Your task to perform on an android device: check android version Image 0: 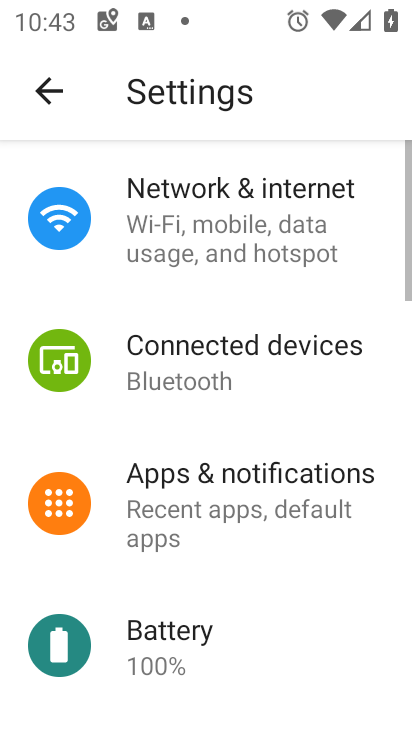
Step 0: press home button
Your task to perform on an android device: check android version Image 1: 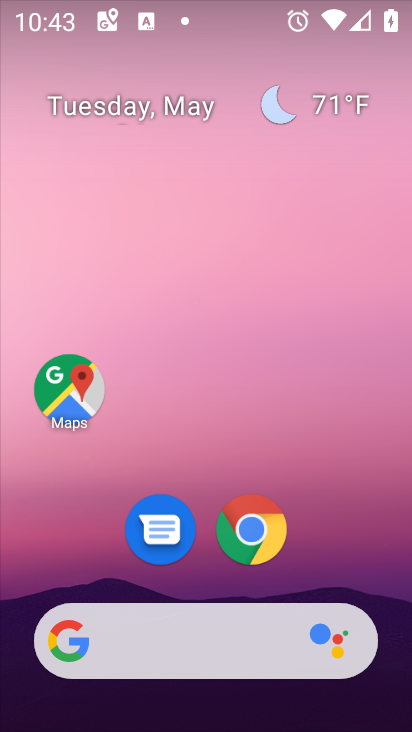
Step 1: drag from (232, 637) to (277, 236)
Your task to perform on an android device: check android version Image 2: 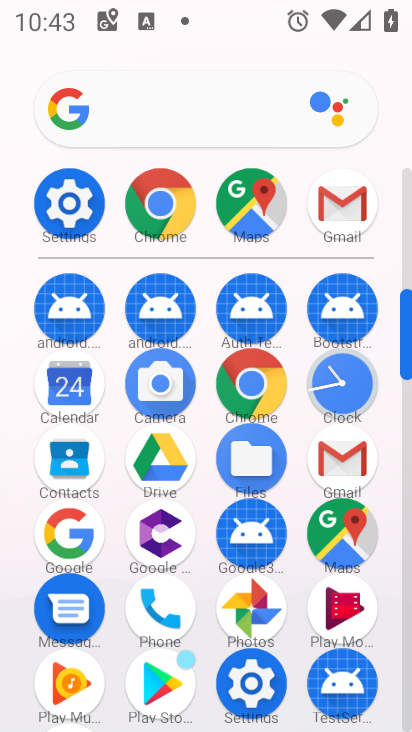
Step 2: click (86, 212)
Your task to perform on an android device: check android version Image 3: 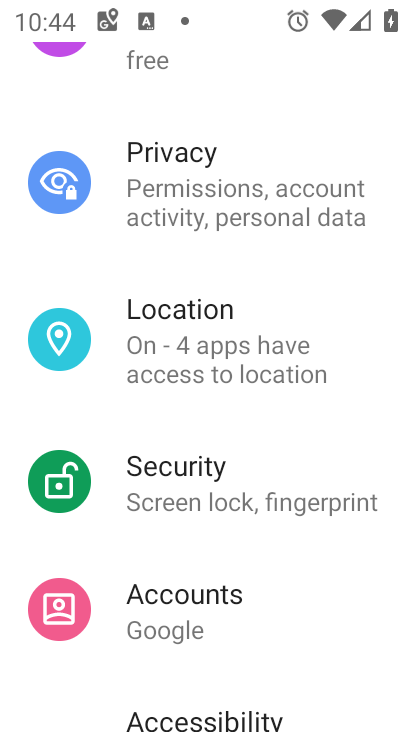
Step 3: drag from (167, 479) to (200, 347)
Your task to perform on an android device: check android version Image 4: 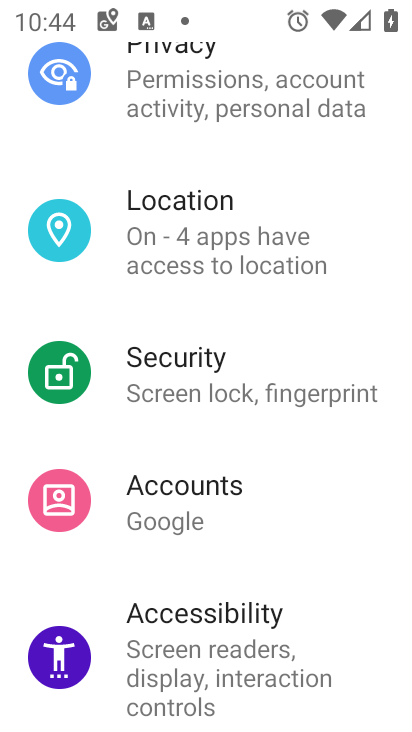
Step 4: drag from (208, 639) to (302, 123)
Your task to perform on an android device: check android version Image 5: 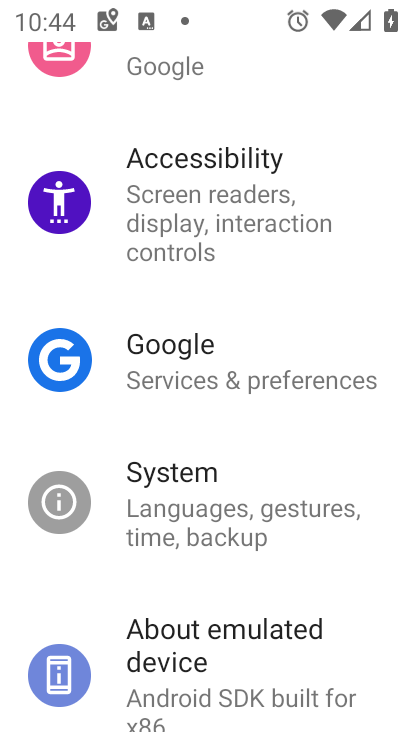
Step 5: drag from (253, 550) to (269, 377)
Your task to perform on an android device: check android version Image 6: 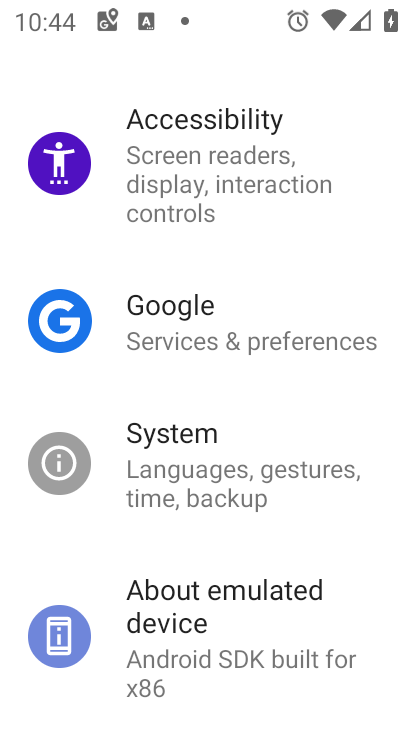
Step 6: click (261, 606)
Your task to perform on an android device: check android version Image 7: 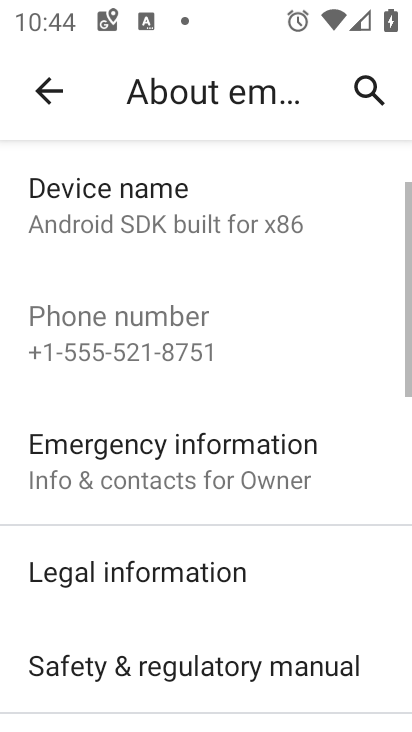
Step 7: drag from (260, 605) to (312, 303)
Your task to perform on an android device: check android version Image 8: 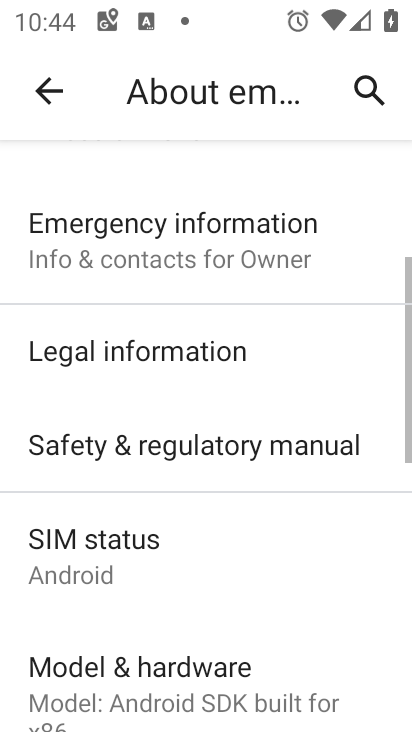
Step 8: drag from (146, 519) to (184, 290)
Your task to perform on an android device: check android version Image 9: 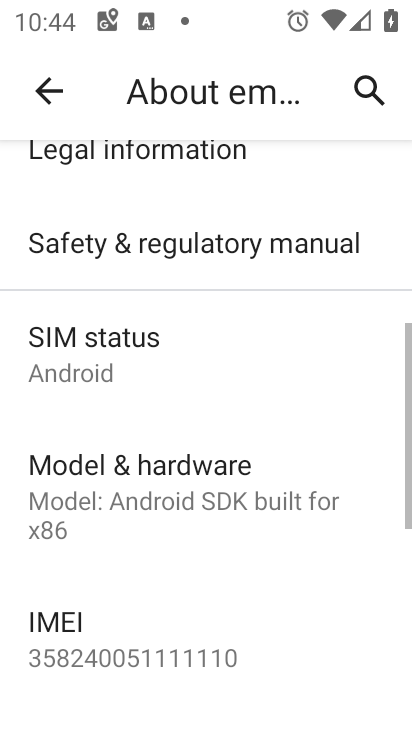
Step 9: drag from (190, 524) to (202, 291)
Your task to perform on an android device: check android version Image 10: 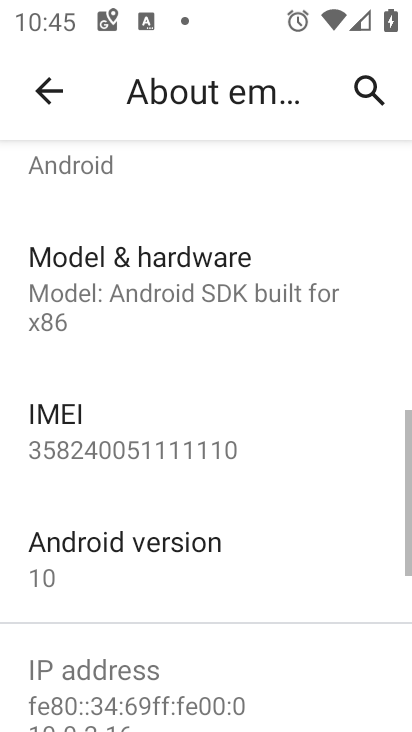
Step 10: click (172, 579)
Your task to perform on an android device: check android version Image 11: 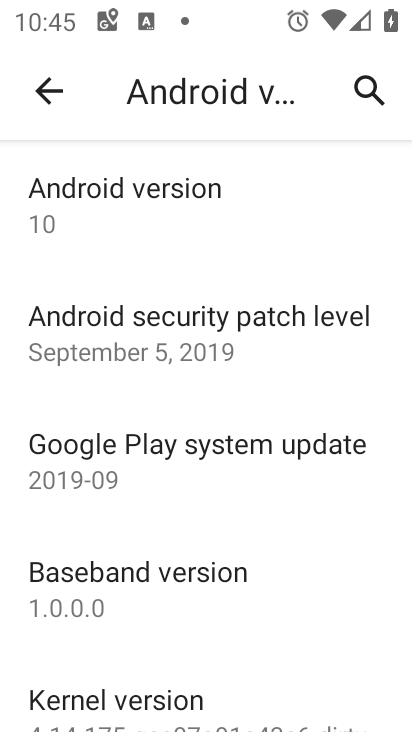
Step 11: task complete